Your task to perform on an android device: turn off wifi Image 0: 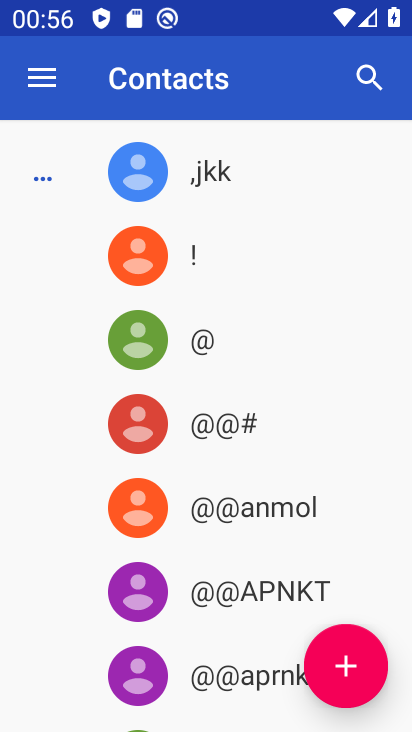
Step 0: press home button
Your task to perform on an android device: turn off wifi Image 1: 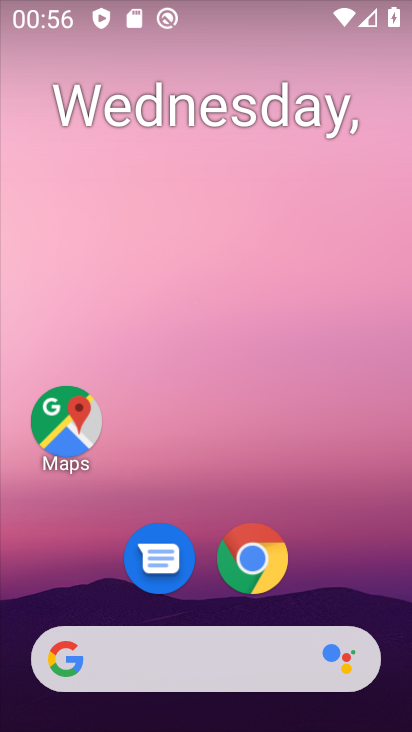
Step 1: drag from (77, 626) to (202, 109)
Your task to perform on an android device: turn off wifi Image 2: 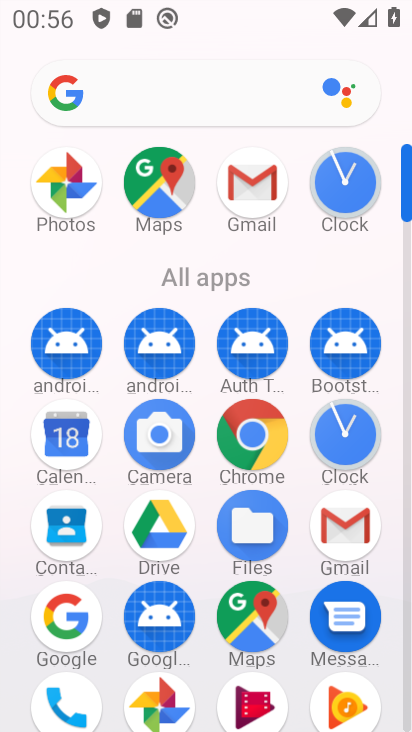
Step 2: drag from (118, 634) to (204, 368)
Your task to perform on an android device: turn off wifi Image 3: 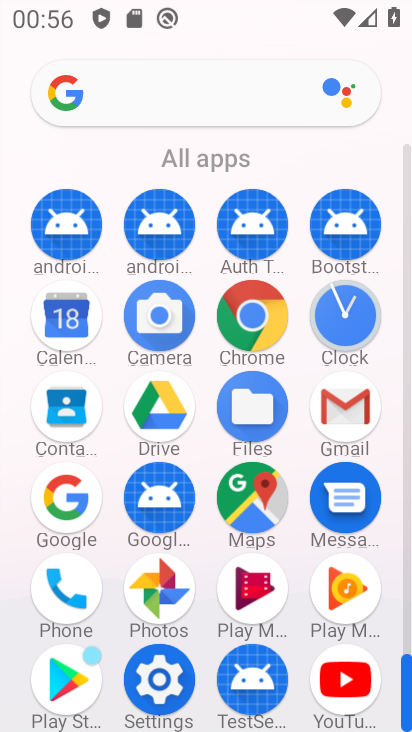
Step 3: click (157, 686)
Your task to perform on an android device: turn off wifi Image 4: 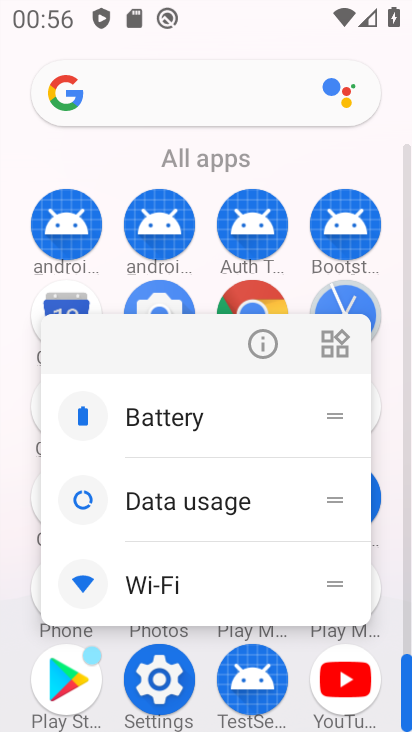
Step 4: click (159, 680)
Your task to perform on an android device: turn off wifi Image 5: 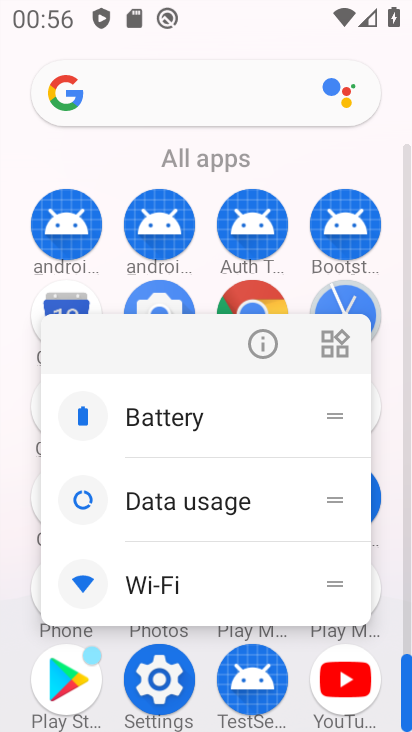
Step 5: click (161, 672)
Your task to perform on an android device: turn off wifi Image 6: 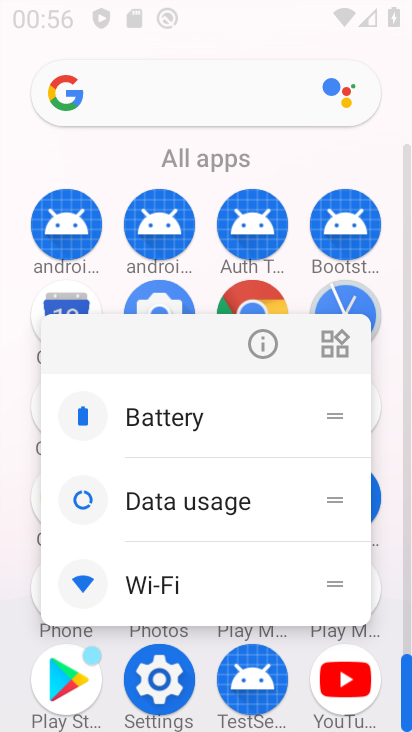
Step 6: click (163, 672)
Your task to perform on an android device: turn off wifi Image 7: 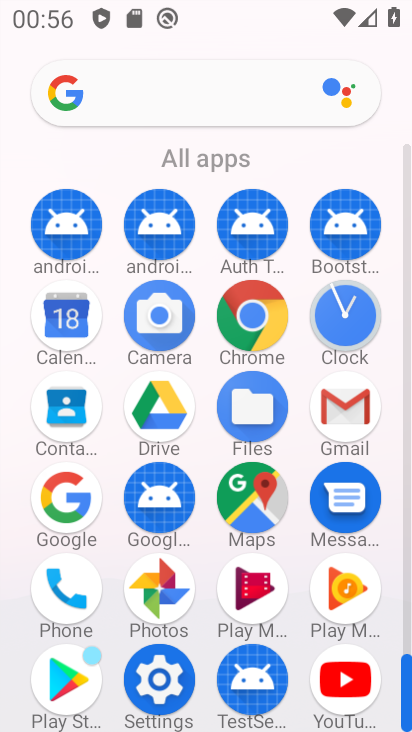
Step 7: click (164, 680)
Your task to perform on an android device: turn off wifi Image 8: 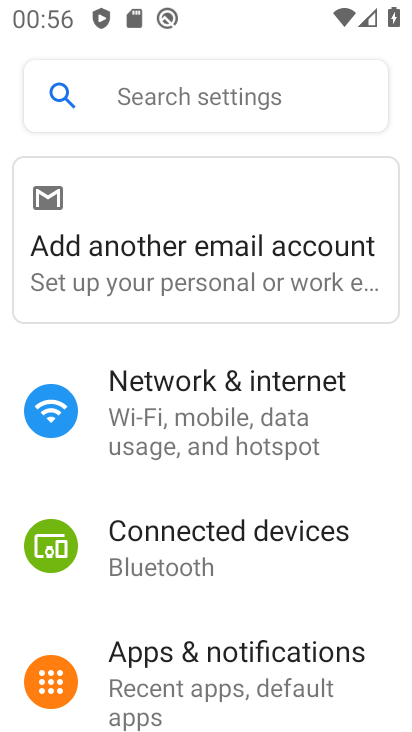
Step 8: click (262, 404)
Your task to perform on an android device: turn off wifi Image 9: 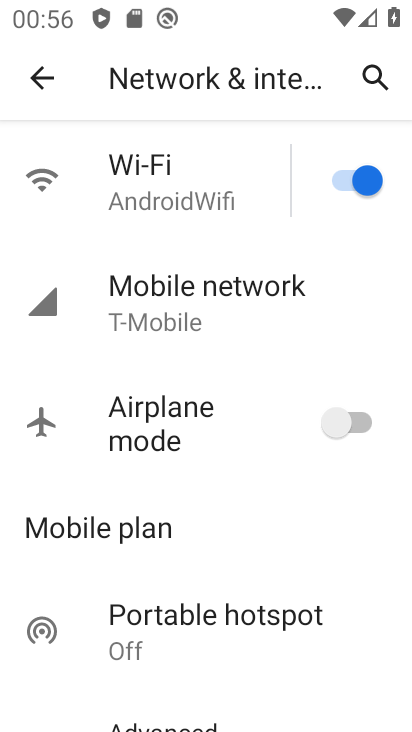
Step 9: click (351, 163)
Your task to perform on an android device: turn off wifi Image 10: 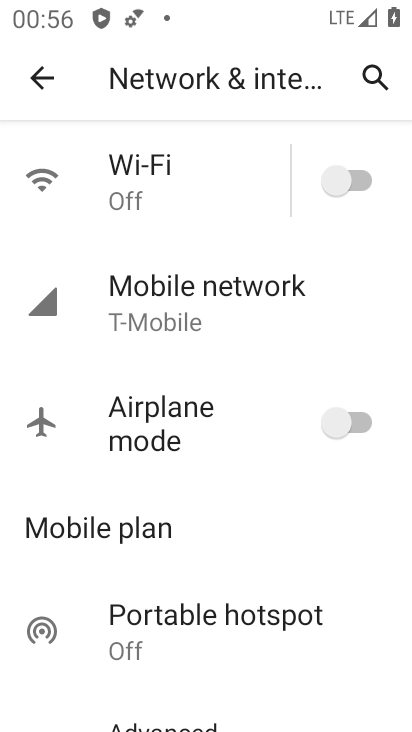
Step 10: task complete